Your task to perform on an android device: Open the calendar app, open the side menu, and click the "Day" option Image 0: 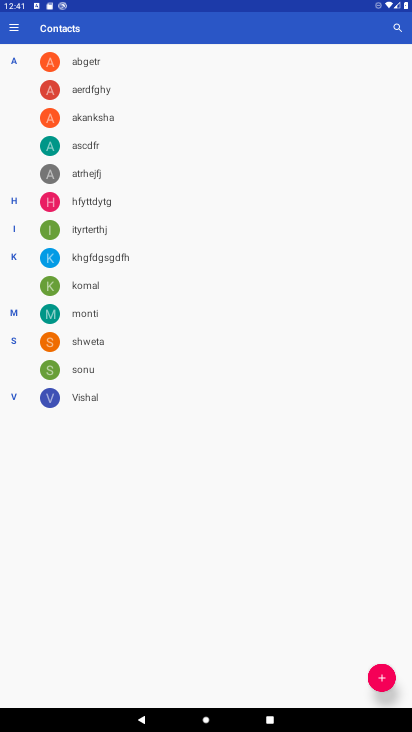
Step 0: press home button
Your task to perform on an android device: Open the calendar app, open the side menu, and click the "Day" option Image 1: 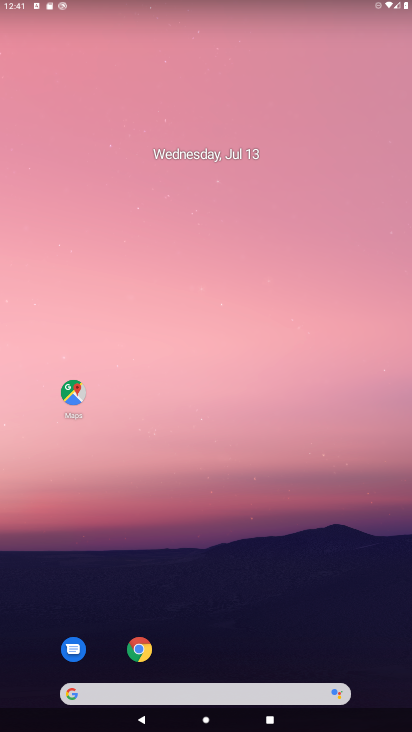
Step 1: drag from (384, 678) to (355, 64)
Your task to perform on an android device: Open the calendar app, open the side menu, and click the "Day" option Image 2: 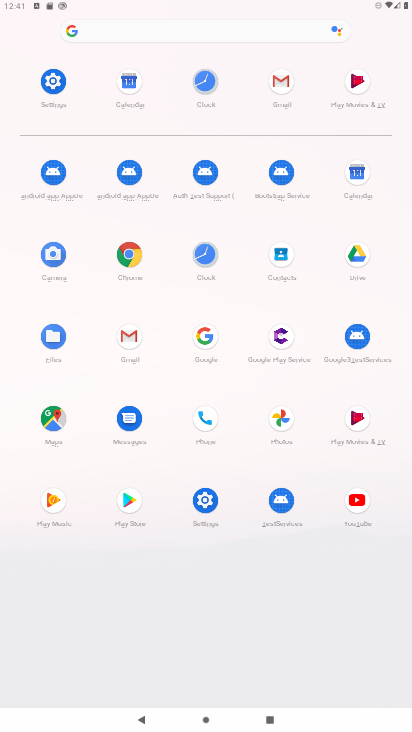
Step 2: click (357, 177)
Your task to perform on an android device: Open the calendar app, open the side menu, and click the "Day" option Image 3: 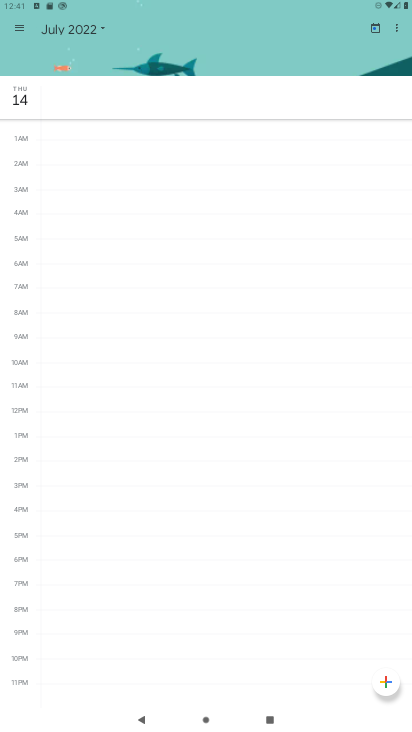
Step 3: click (17, 22)
Your task to perform on an android device: Open the calendar app, open the side menu, and click the "Day" option Image 4: 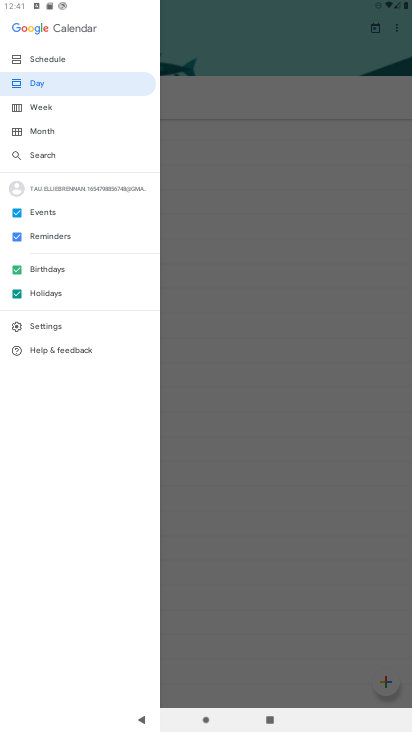
Step 4: click (39, 86)
Your task to perform on an android device: Open the calendar app, open the side menu, and click the "Day" option Image 5: 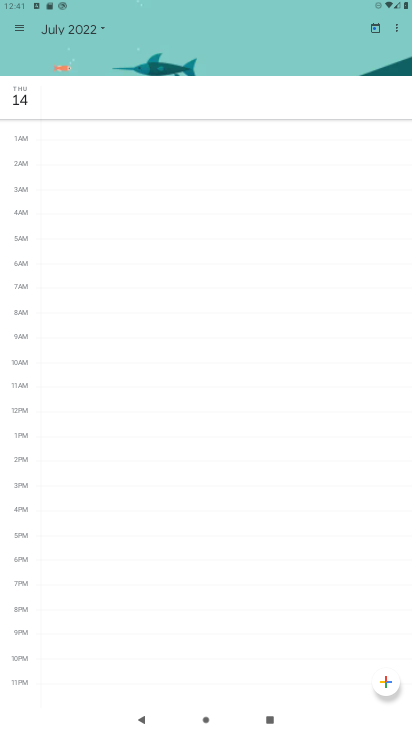
Step 5: task complete